Your task to perform on an android device: Go to wifi settings Image 0: 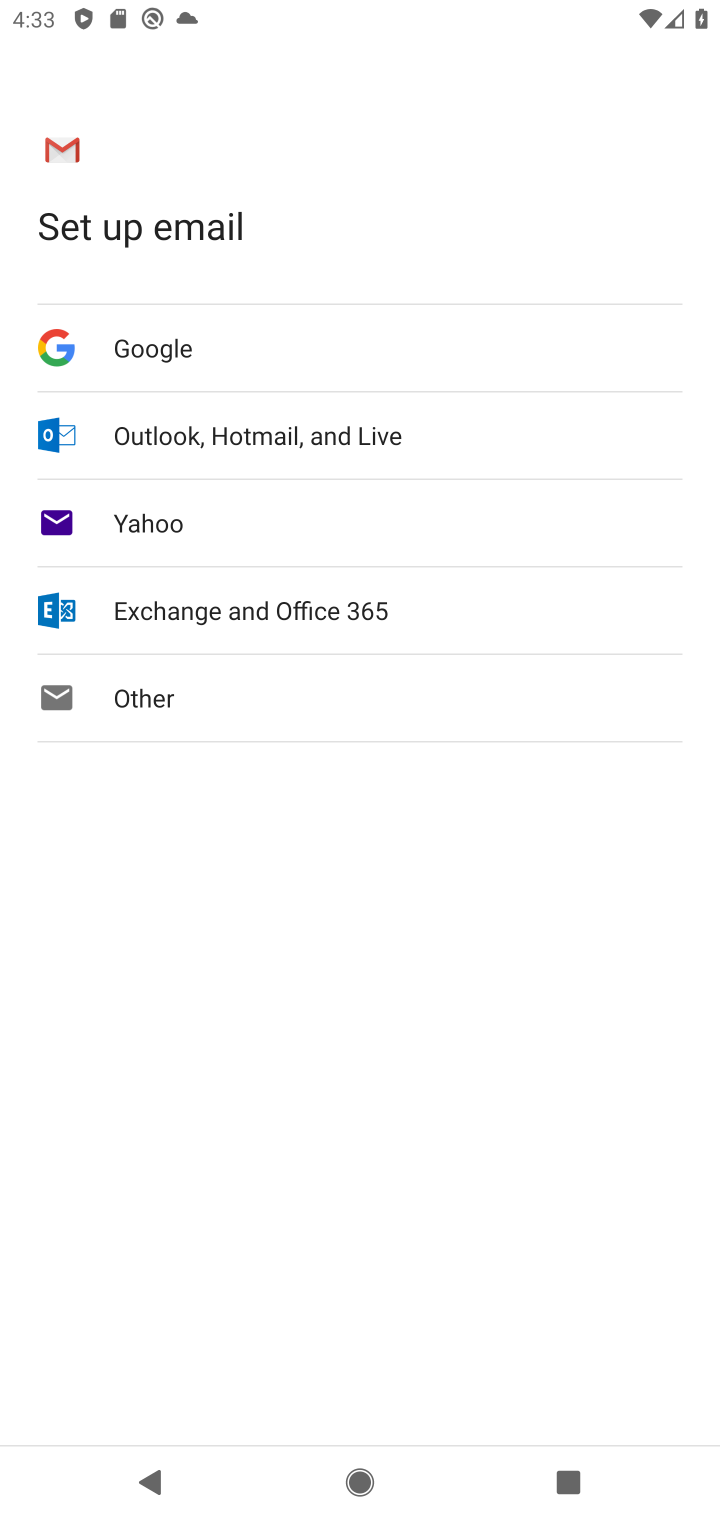
Step 0: press back button
Your task to perform on an android device: Go to wifi settings Image 1: 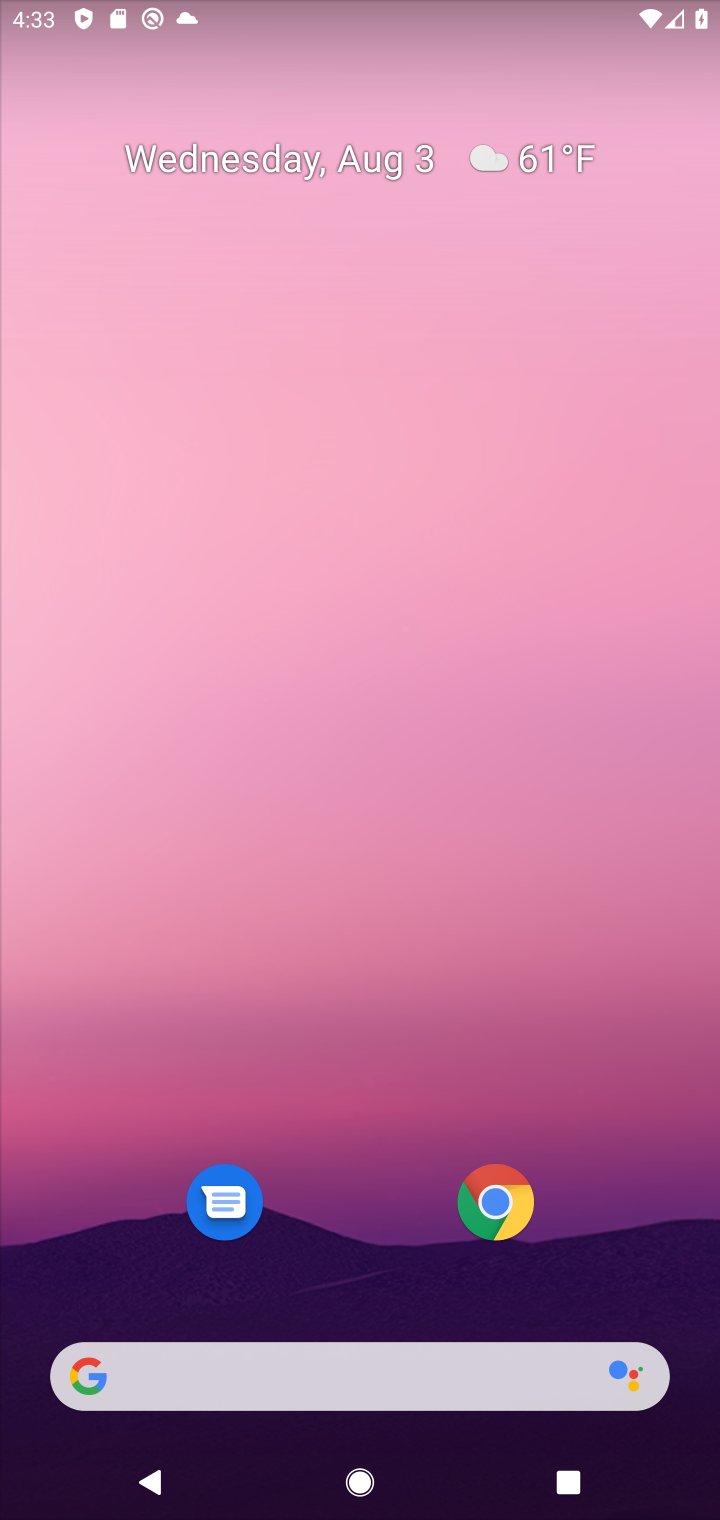
Step 1: drag from (169, 79) to (303, 1303)
Your task to perform on an android device: Go to wifi settings Image 2: 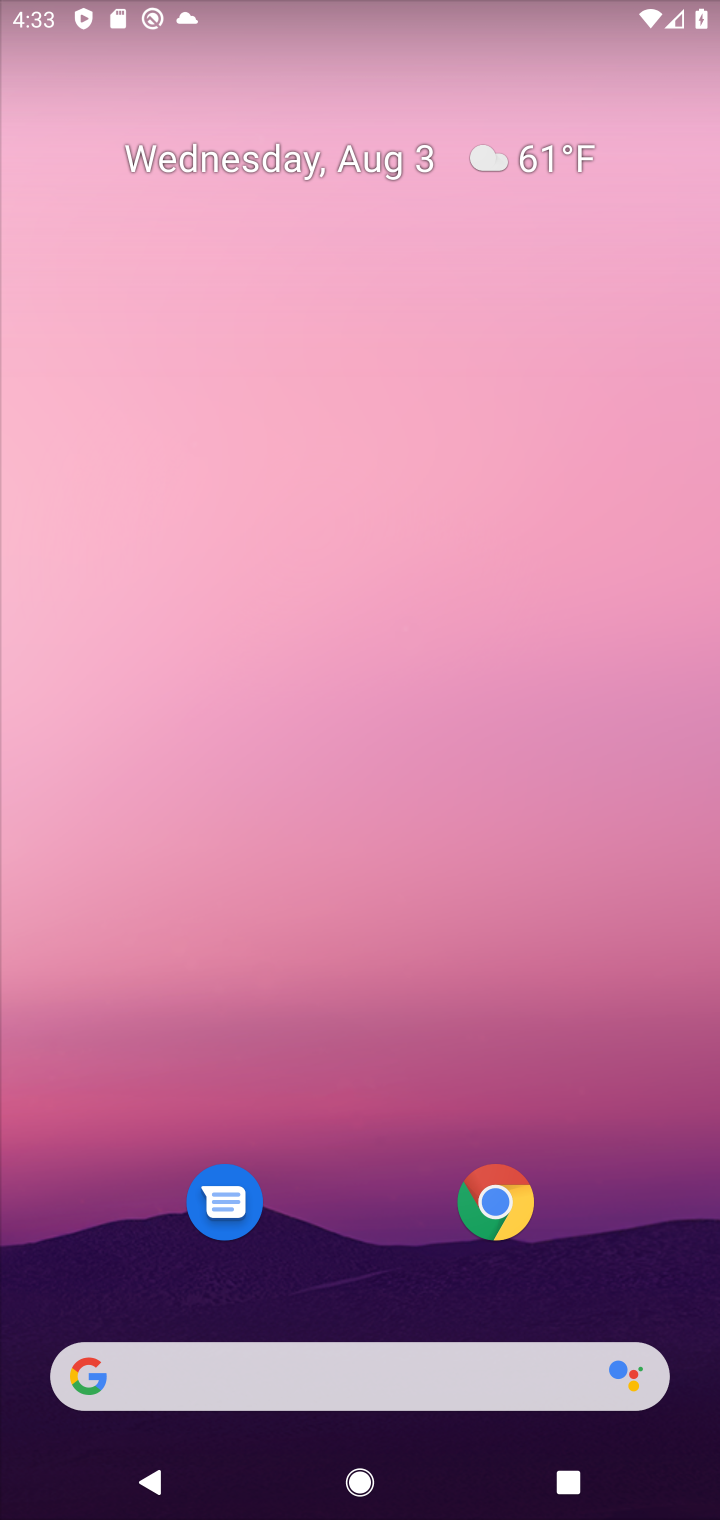
Step 2: drag from (91, 71) to (135, 765)
Your task to perform on an android device: Go to wifi settings Image 3: 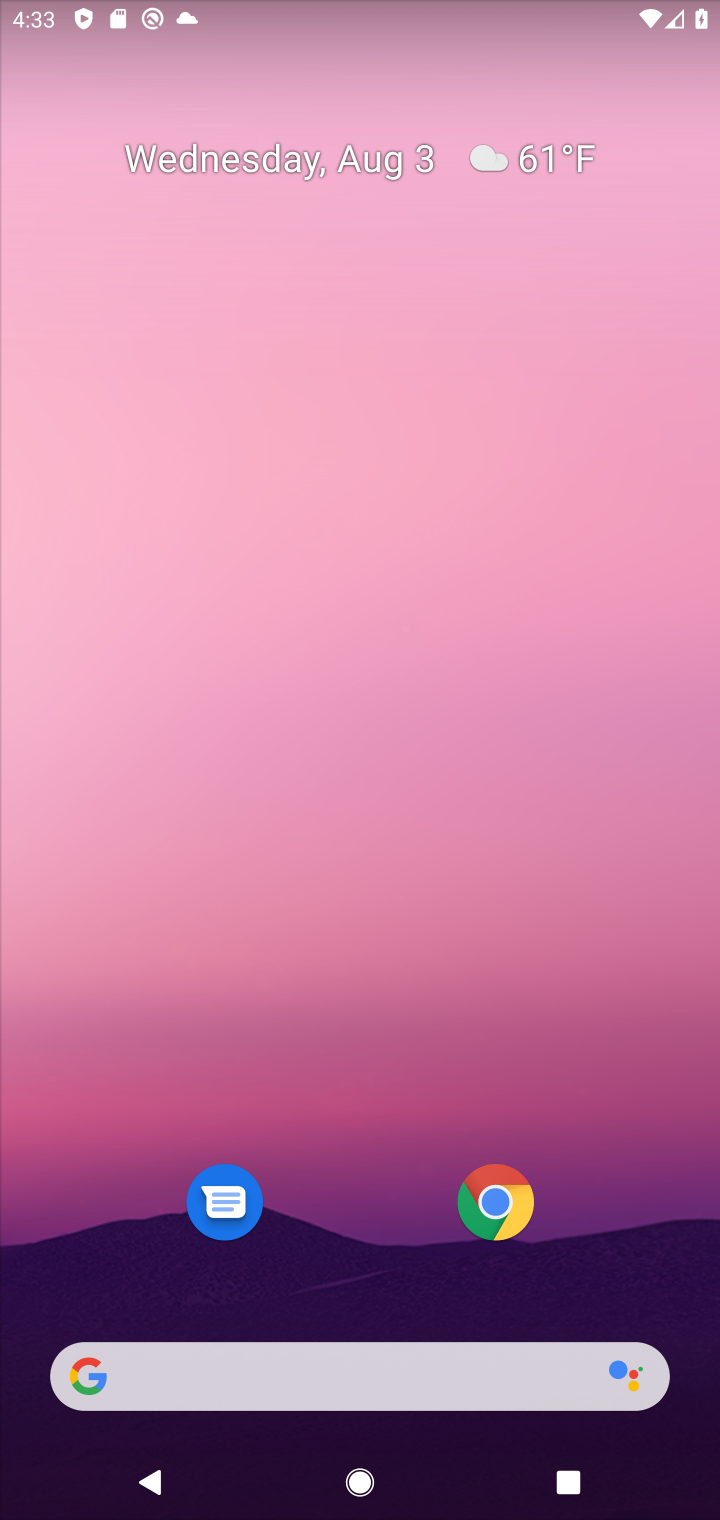
Step 3: drag from (142, 174) to (186, 1238)
Your task to perform on an android device: Go to wifi settings Image 4: 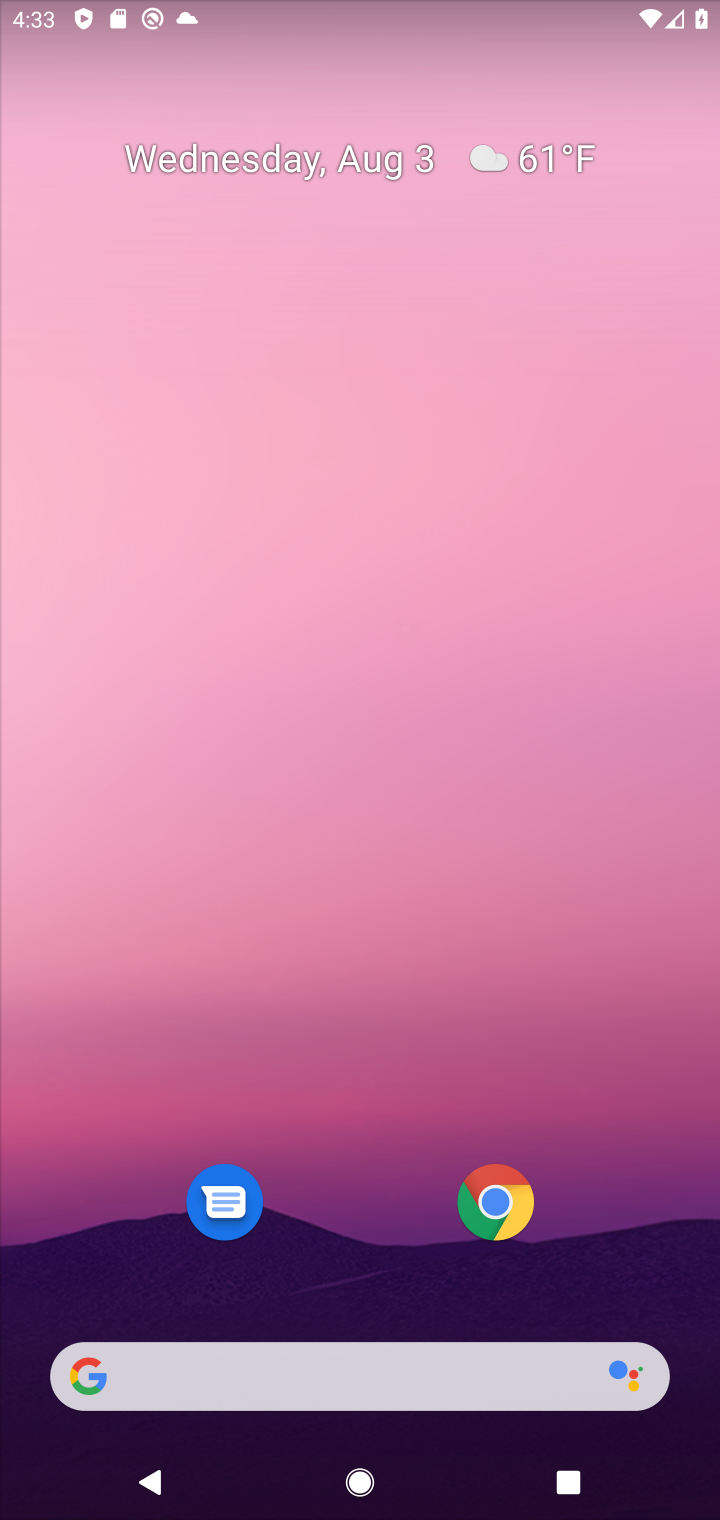
Step 4: drag from (126, 16) to (251, 1078)
Your task to perform on an android device: Go to wifi settings Image 5: 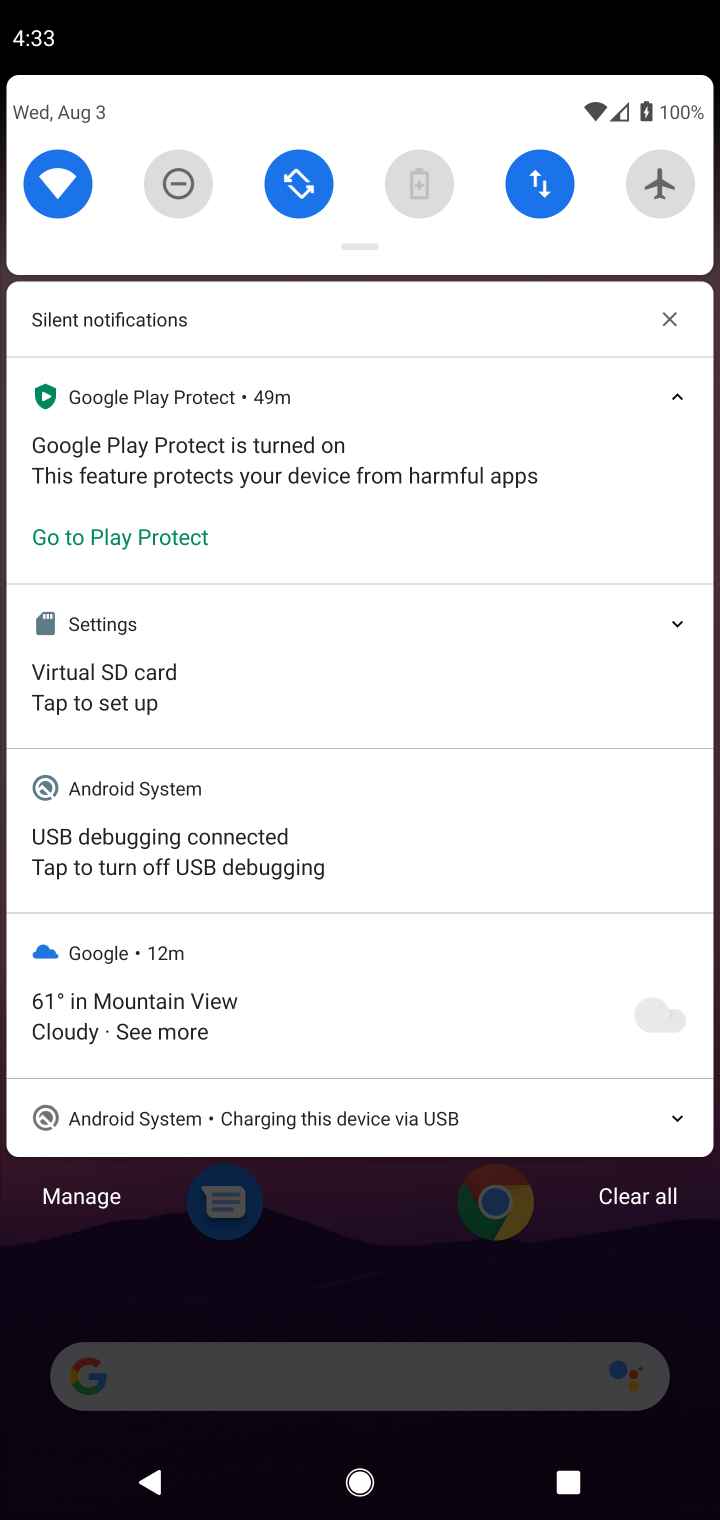
Step 5: click (59, 170)
Your task to perform on an android device: Go to wifi settings Image 6: 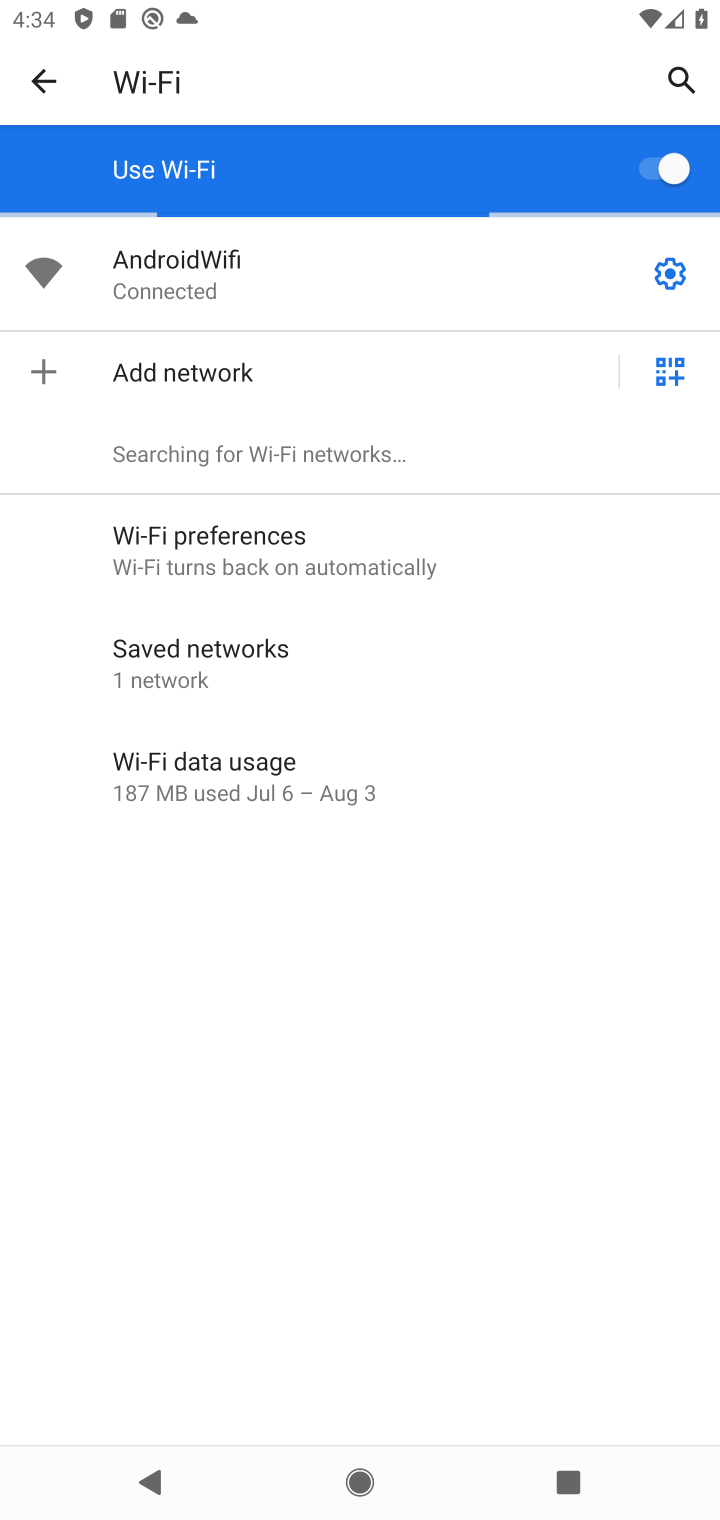
Step 6: task complete